Your task to perform on an android device: Do I have any events tomorrow? Image 0: 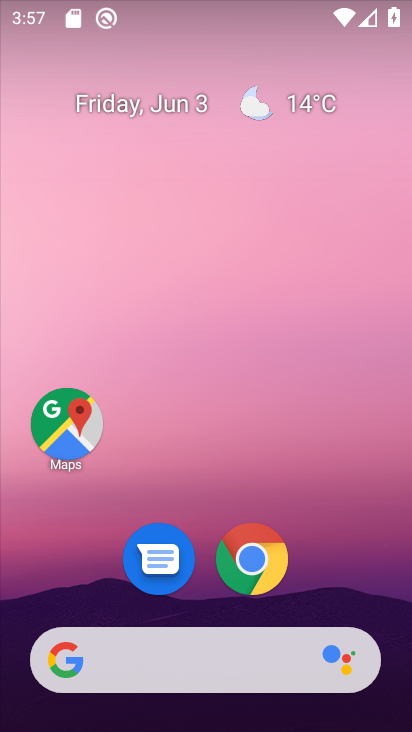
Step 0: drag from (199, 359) to (121, 22)
Your task to perform on an android device: Do I have any events tomorrow? Image 1: 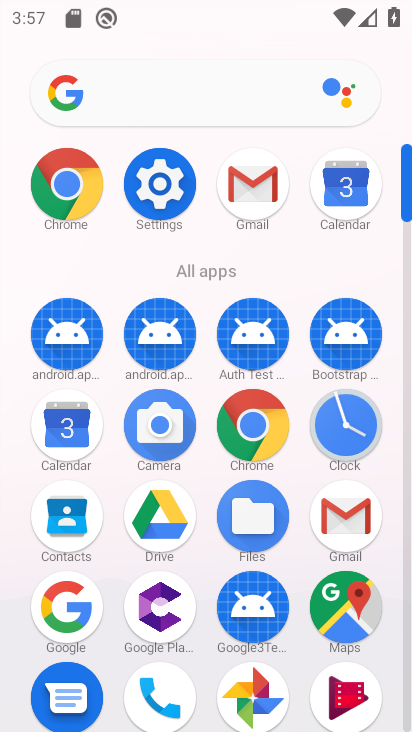
Step 1: click (84, 432)
Your task to perform on an android device: Do I have any events tomorrow? Image 2: 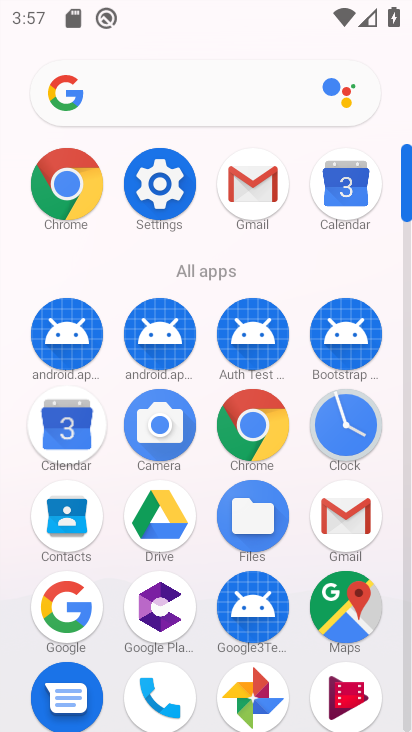
Step 2: click (85, 433)
Your task to perform on an android device: Do I have any events tomorrow? Image 3: 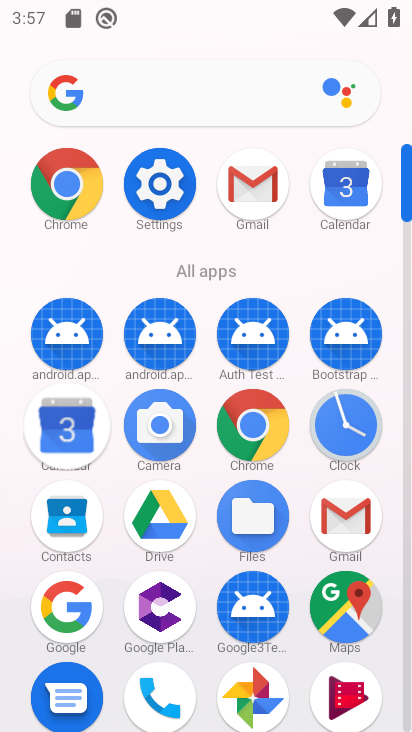
Step 3: click (81, 436)
Your task to perform on an android device: Do I have any events tomorrow? Image 4: 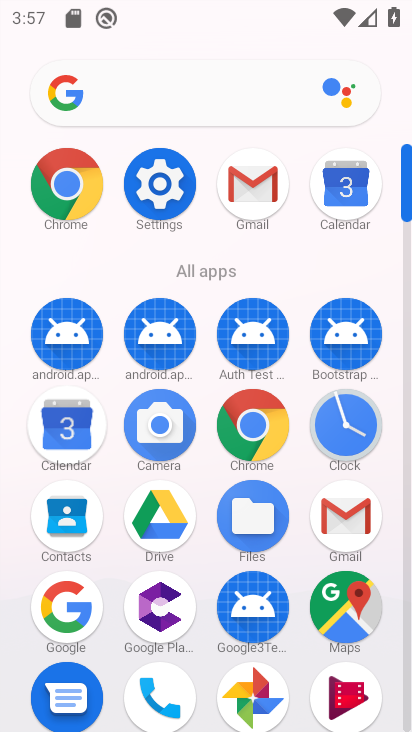
Step 4: click (63, 427)
Your task to perform on an android device: Do I have any events tomorrow? Image 5: 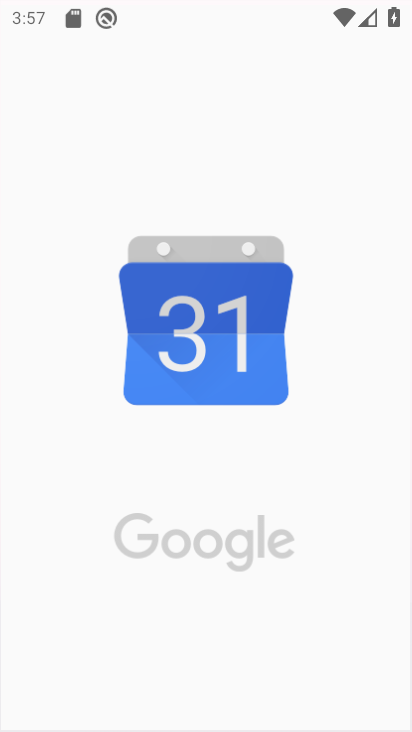
Step 5: click (66, 433)
Your task to perform on an android device: Do I have any events tomorrow? Image 6: 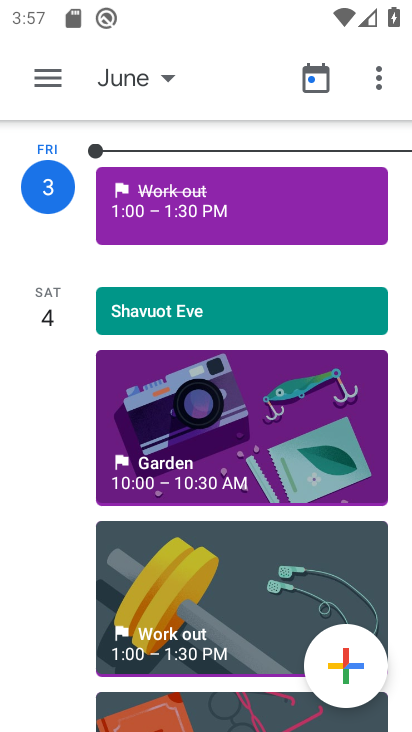
Step 6: click (168, 82)
Your task to perform on an android device: Do I have any events tomorrow? Image 7: 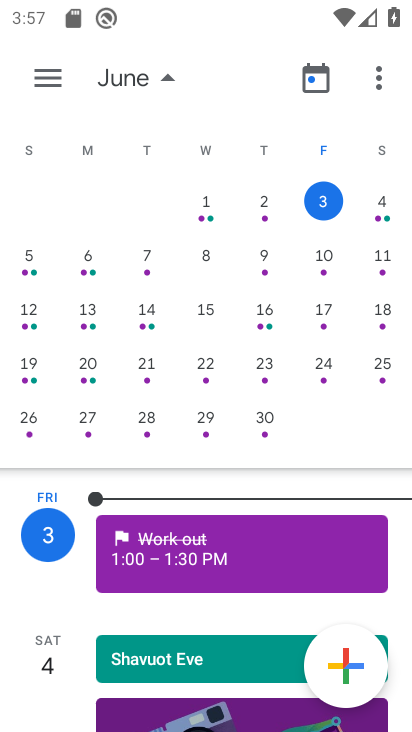
Step 7: click (381, 203)
Your task to perform on an android device: Do I have any events tomorrow? Image 8: 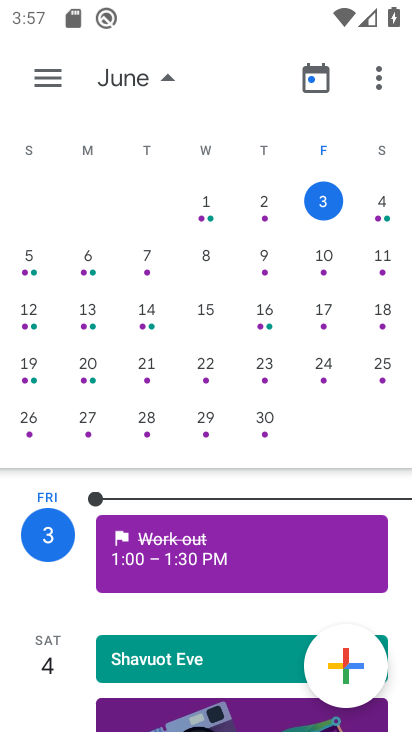
Step 8: click (381, 203)
Your task to perform on an android device: Do I have any events tomorrow? Image 9: 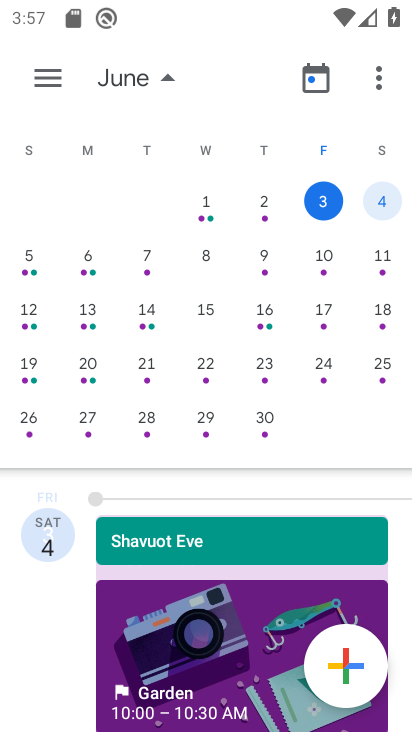
Step 9: click (383, 203)
Your task to perform on an android device: Do I have any events tomorrow? Image 10: 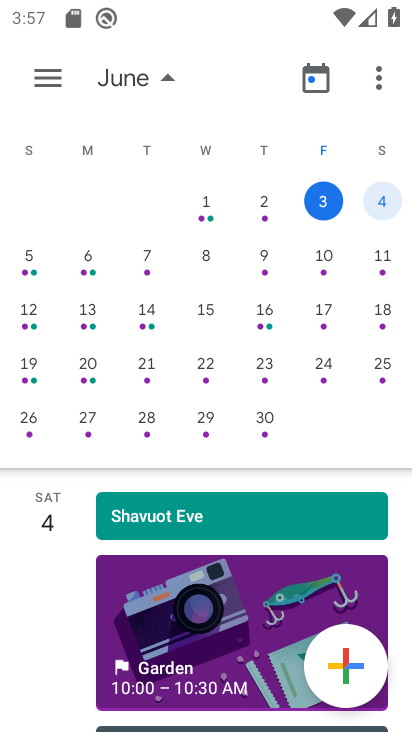
Step 10: click (218, 642)
Your task to perform on an android device: Do I have any events tomorrow? Image 11: 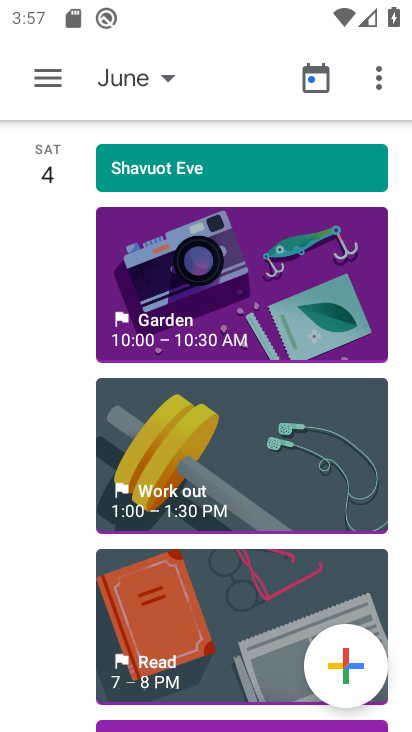
Step 11: task complete